Your task to perform on an android device: toggle data saver in the chrome app Image 0: 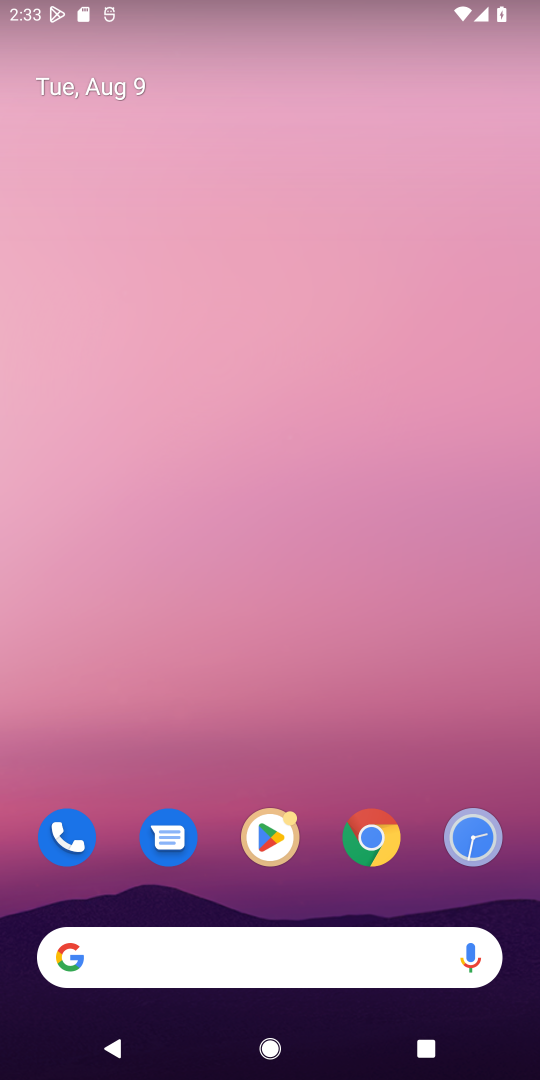
Step 0: drag from (289, 702) to (370, 3)
Your task to perform on an android device: toggle data saver in the chrome app Image 1: 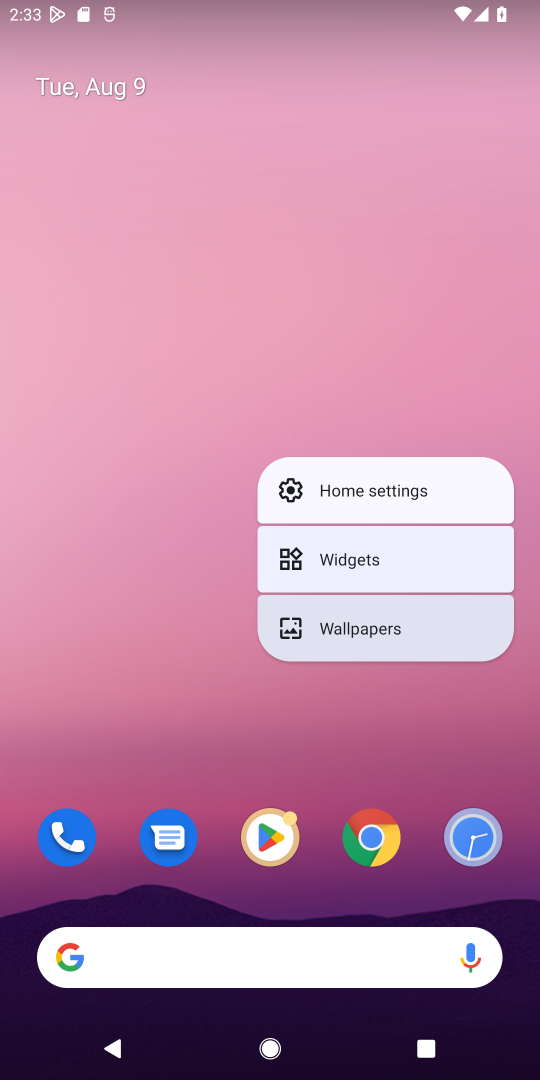
Step 1: drag from (254, 868) to (245, 274)
Your task to perform on an android device: toggle data saver in the chrome app Image 2: 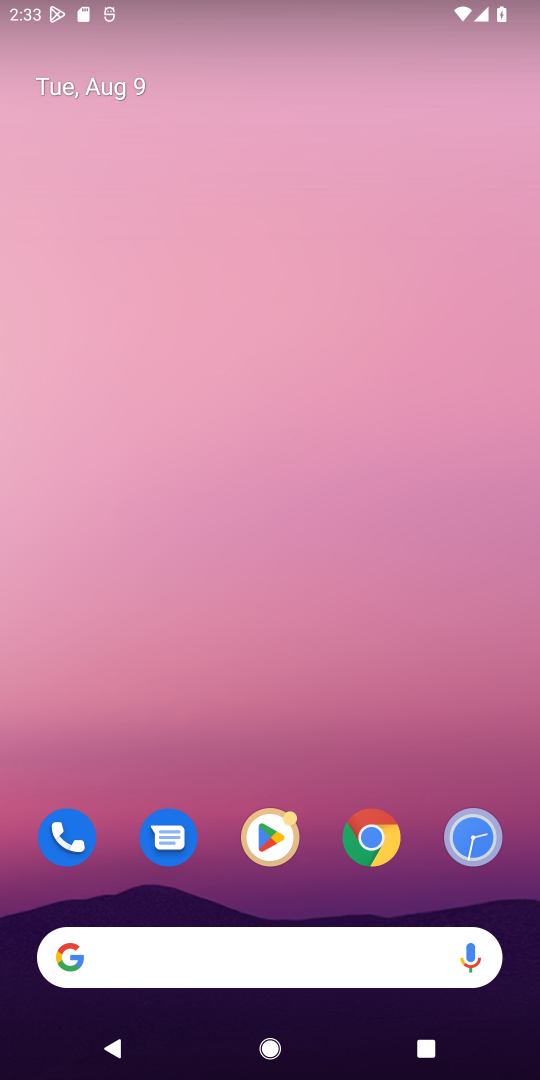
Step 2: drag from (303, 871) to (325, 150)
Your task to perform on an android device: toggle data saver in the chrome app Image 3: 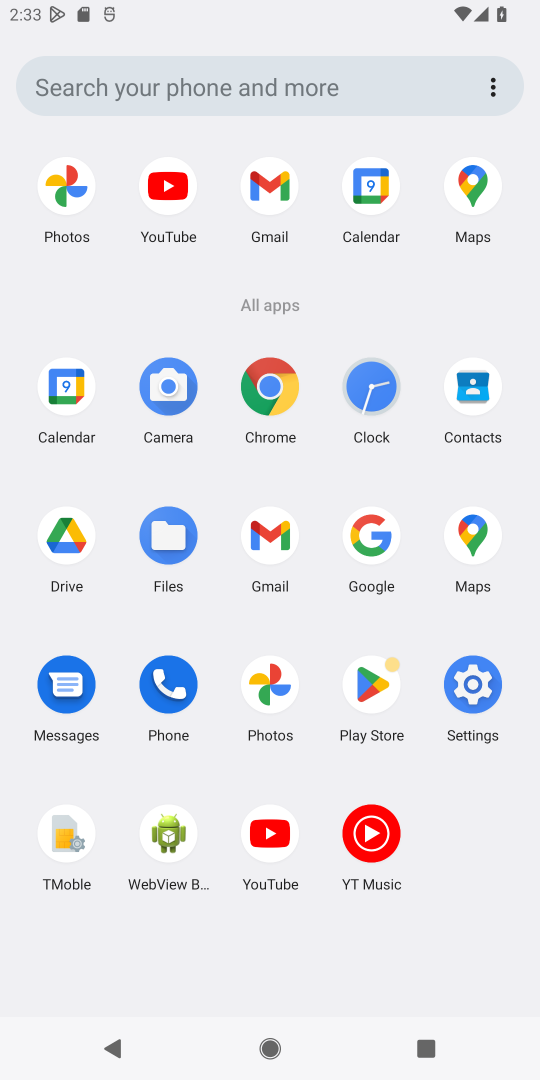
Step 3: click (263, 403)
Your task to perform on an android device: toggle data saver in the chrome app Image 4: 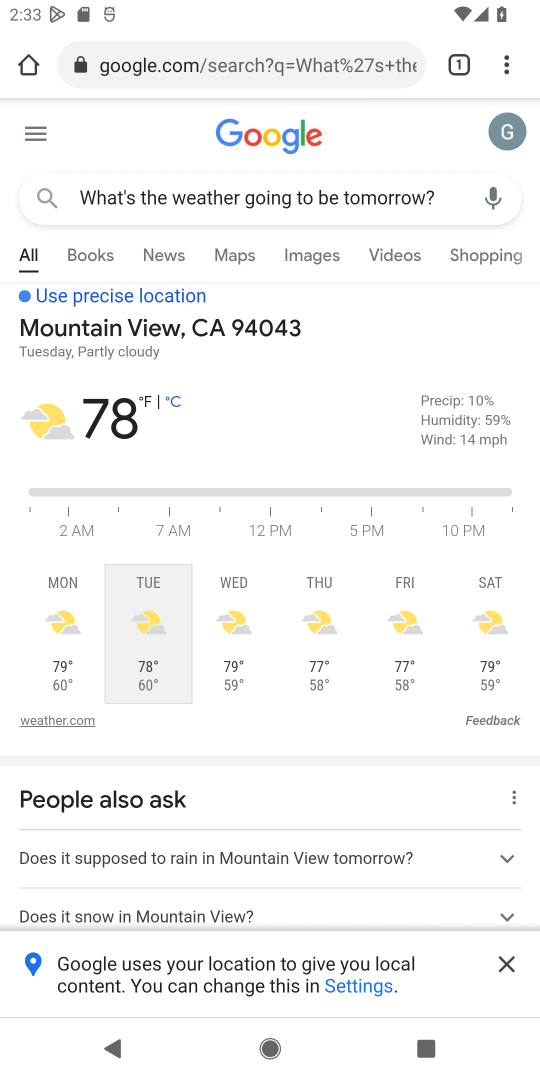
Step 4: click (507, 59)
Your task to perform on an android device: toggle data saver in the chrome app Image 5: 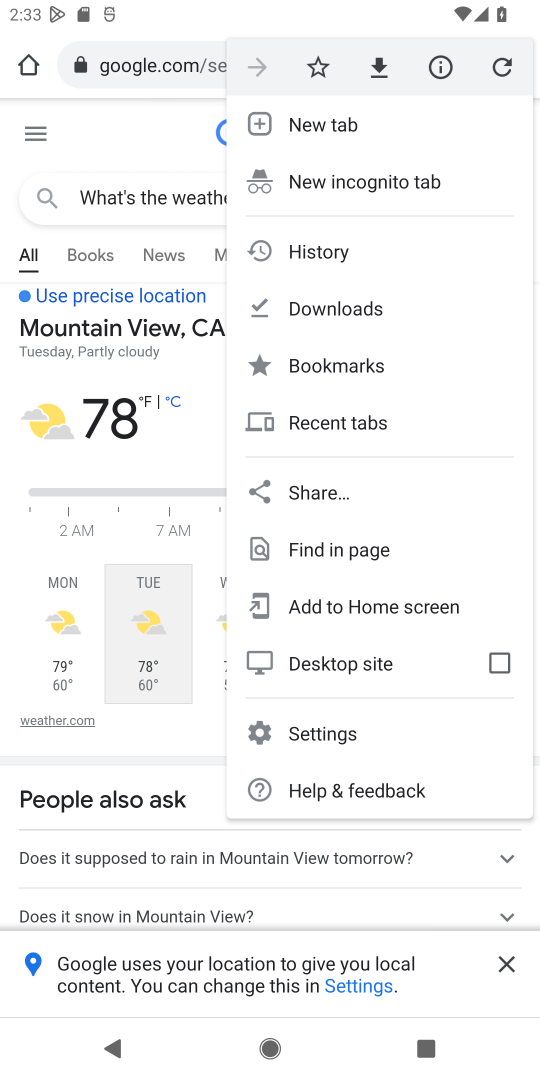
Step 5: click (307, 735)
Your task to perform on an android device: toggle data saver in the chrome app Image 6: 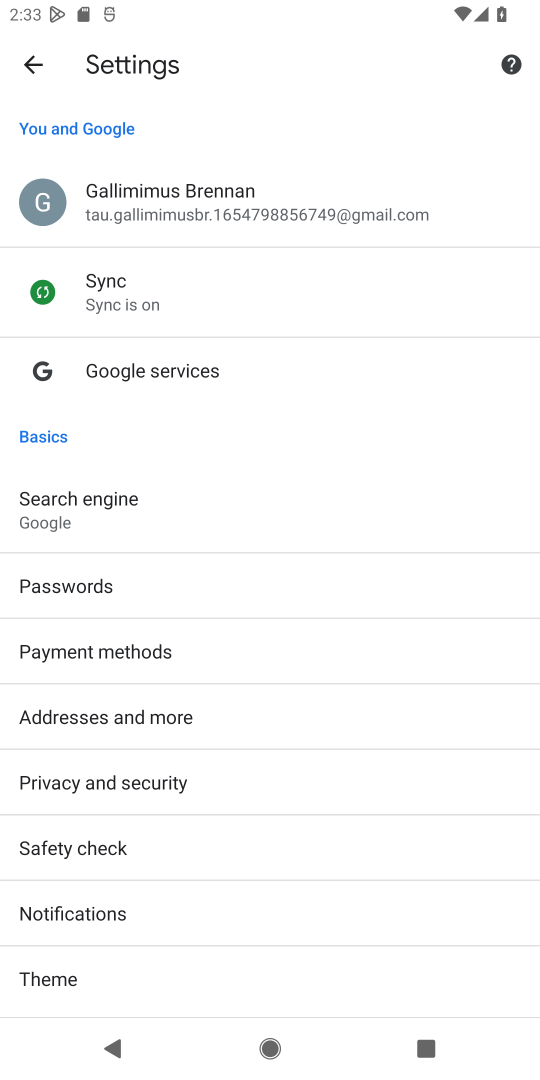
Step 6: drag from (192, 876) to (327, 123)
Your task to perform on an android device: toggle data saver in the chrome app Image 7: 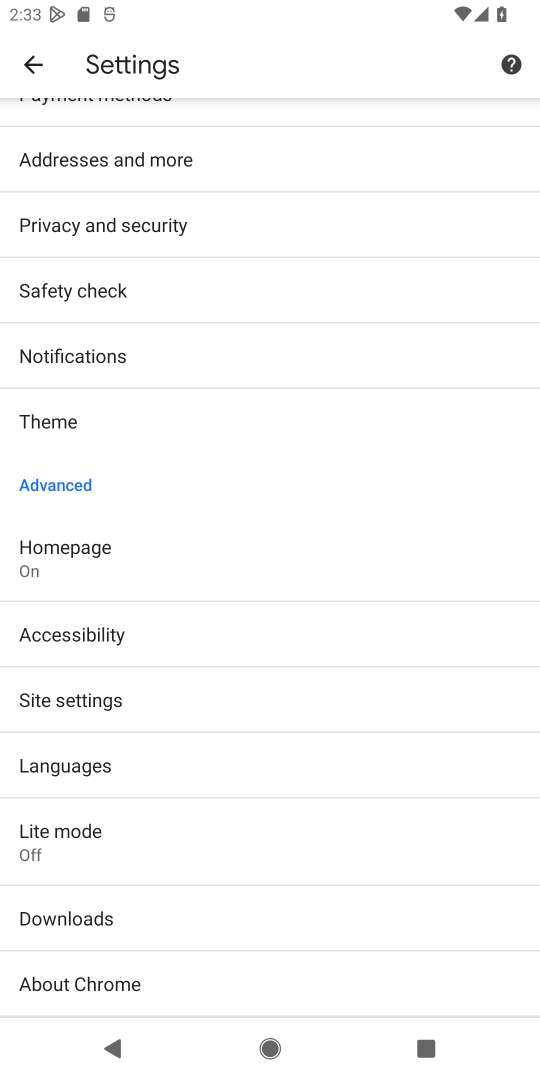
Step 7: click (74, 840)
Your task to perform on an android device: toggle data saver in the chrome app Image 8: 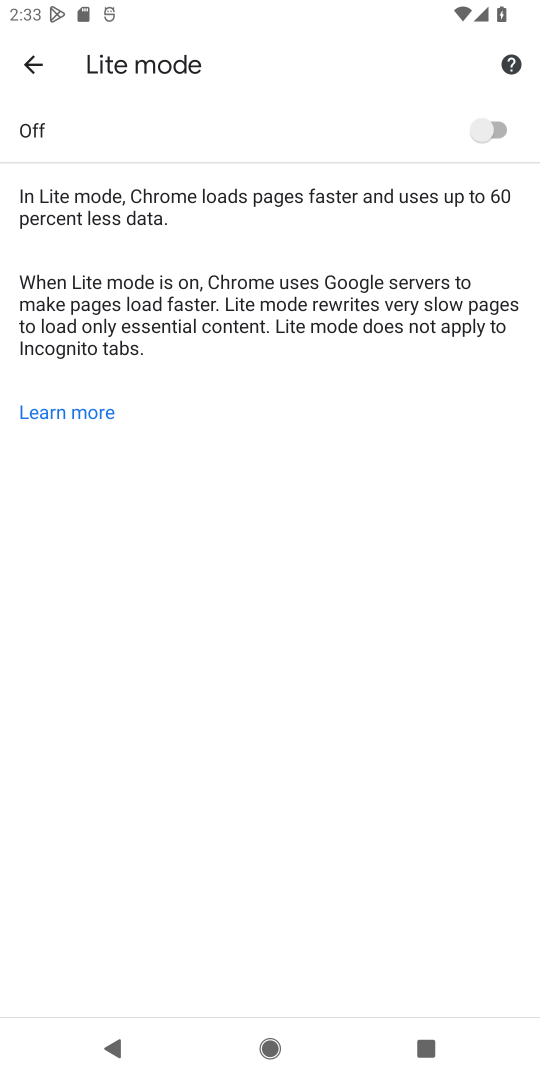
Step 8: click (502, 116)
Your task to perform on an android device: toggle data saver in the chrome app Image 9: 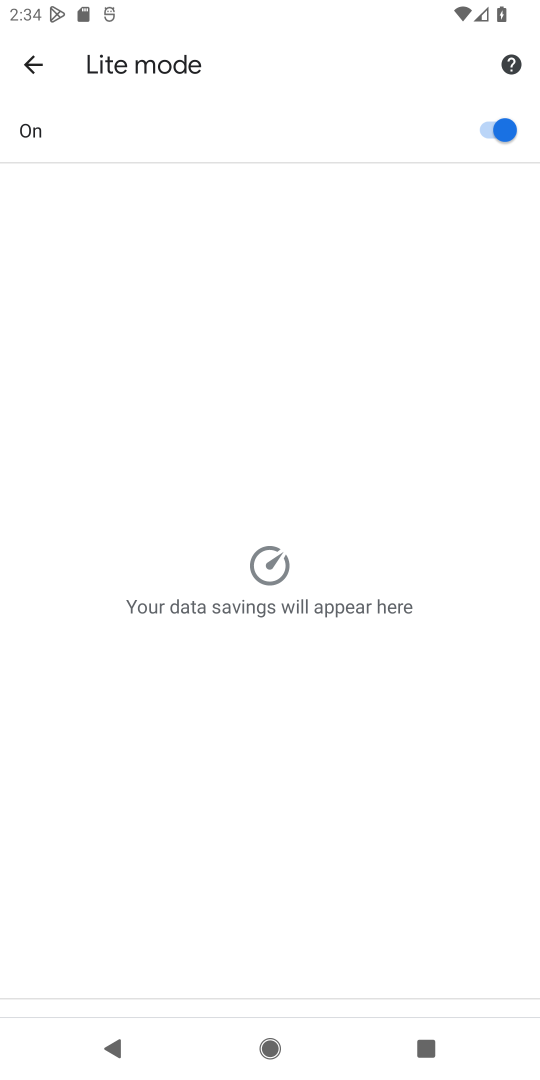
Step 9: task complete